Your task to perform on an android device: change alarm snooze length Image 0: 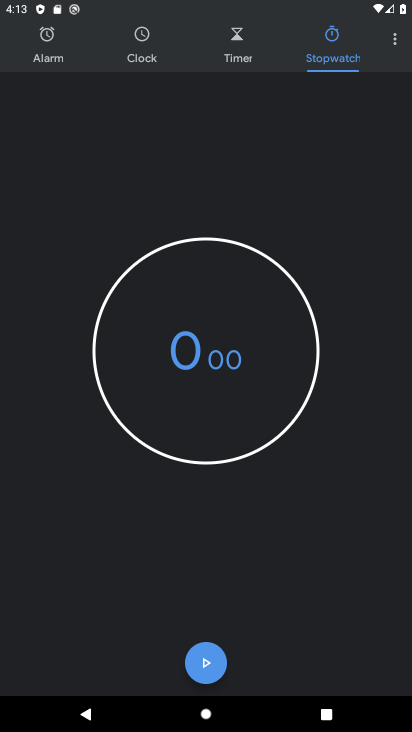
Step 0: press home button
Your task to perform on an android device: change alarm snooze length Image 1: 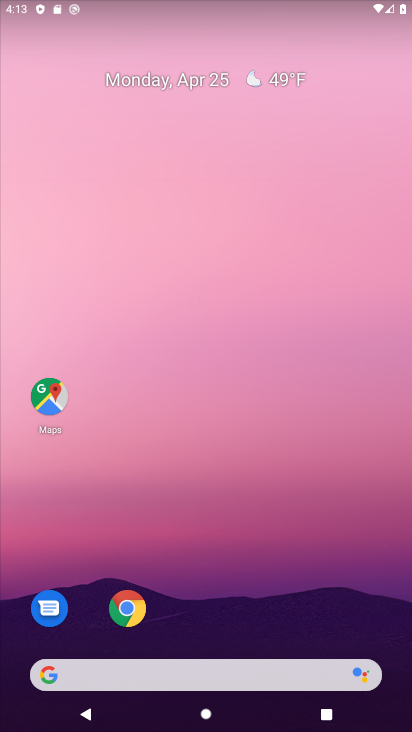
Step 1: drag from (213, 618) to (252, 314)
Your task to perform on an android device: change alarm snooze length Image 2: 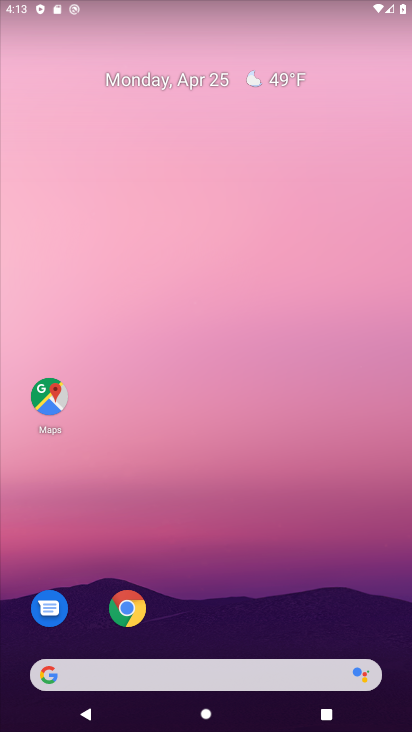
Step 2: drag from (216, 644) to (232, 219)
Your task to perform on an android device: change alarm snooze length Image 3: 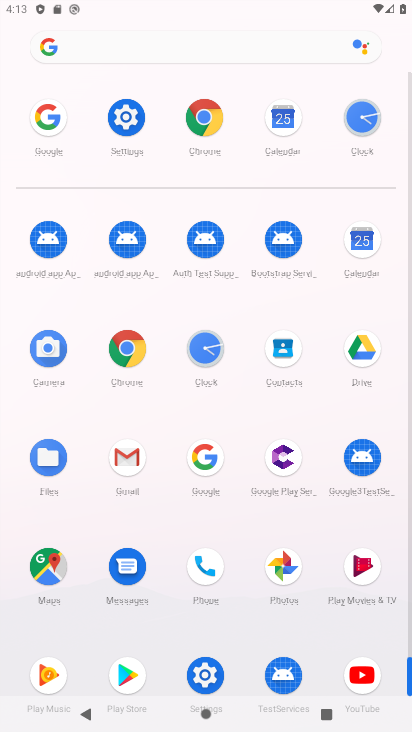
Step 3: click (211, 357)
Your task to perform on an android device: change alarm snooze length Image 4: 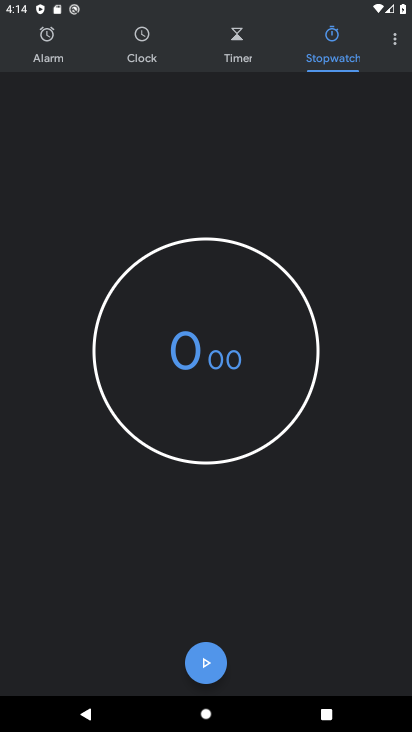
Step 4: click (390, 42)
Your task to perform on an android device: change alarm snooze length Image 5: 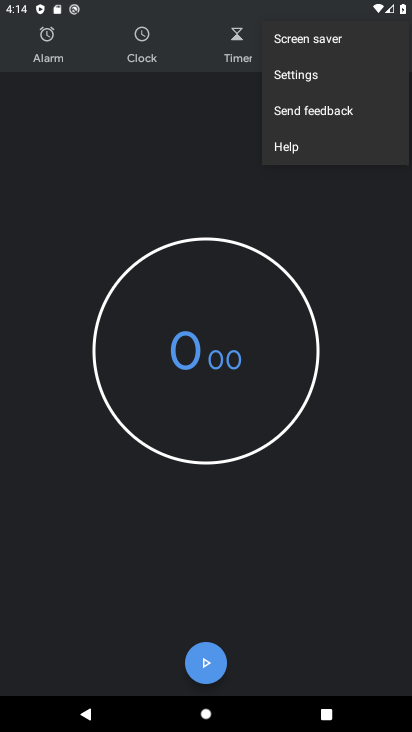
Step 5: click (346, 74)
Your task to perform on an android device: change alarm snooze length Image 6: 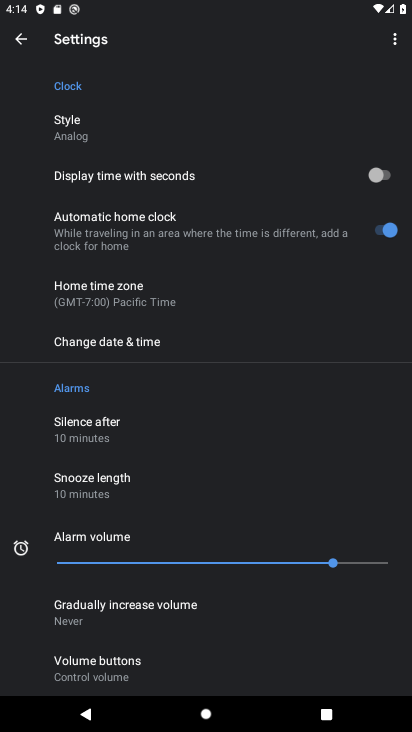
Step 6: drag from (194, 241) to (222, 91)
Your task to perform on an android device: change alarm snooze length Image 7: 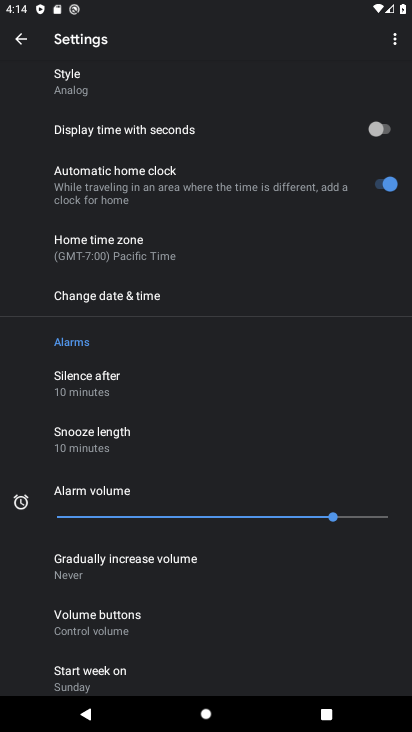
Step 7: drag from (134, 563) to (175, 244)
Your task to perform on an android device: change alarm snooze length Image 8: 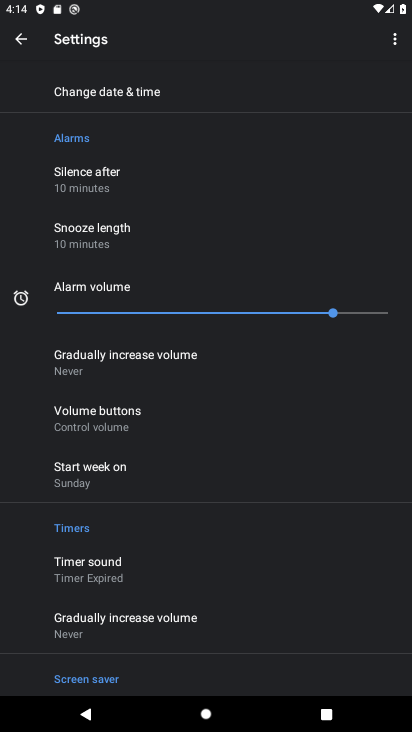
Step 8: drag from (158, 569) to (209, 198)
Your task to perform on an android device: change alarm snooze length Image 9: 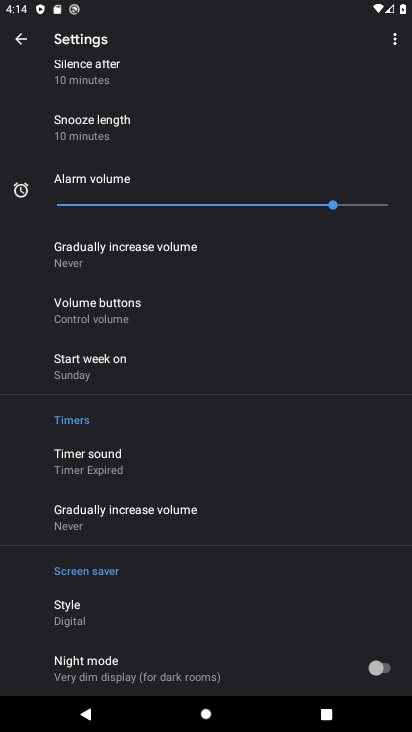
Step 9: click (178, 124)
Your task to perform on an android device: change alarm snooze length Image 10: 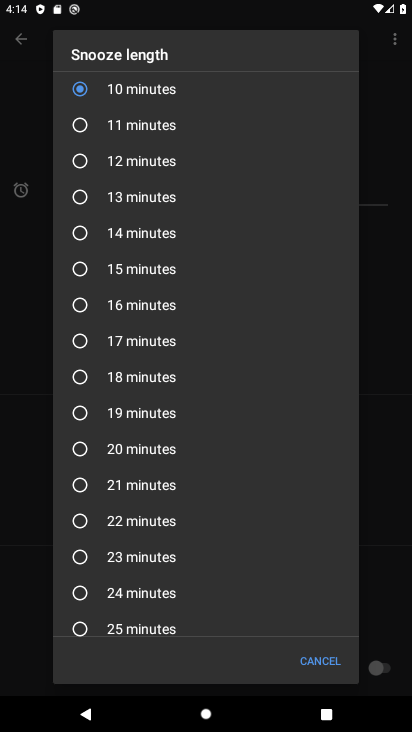
Step 10: click (138, 162)
Your task to perform on an android device: change alarm snooze length Image 11: 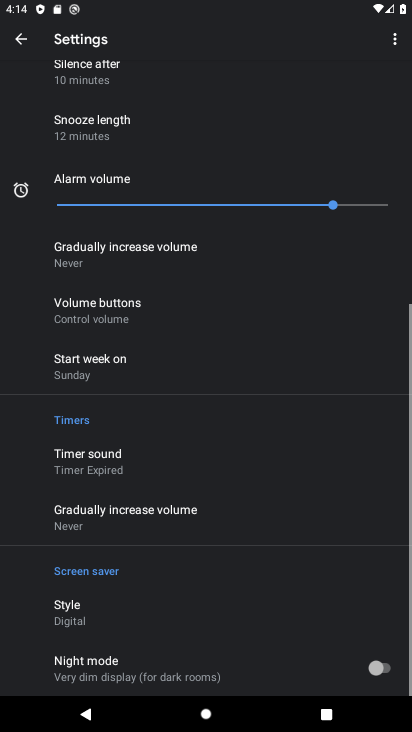
Step 11: task complete